Your task to perform on an android device: uninstall "TextNow: Call + Text Unlimited" Image 0: 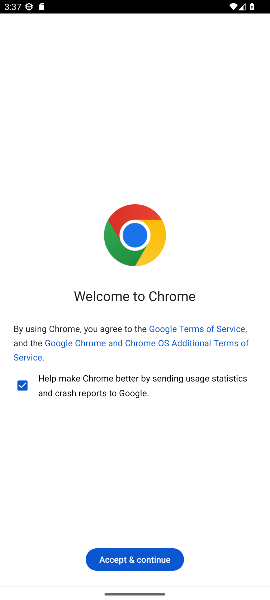
Step 0: press home button
Your task to perform on an android device: uninstall "TextNow: Call + Text Unlimited" Image 1: 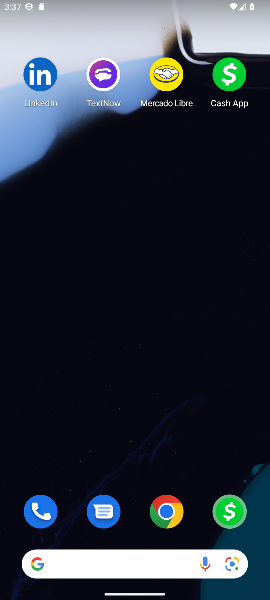
Step 1: drag from (106, 498) to (138, 254)
Your task to perform on an android device: uninstall "TextNow: Call + Text Unlimited" Image 2: 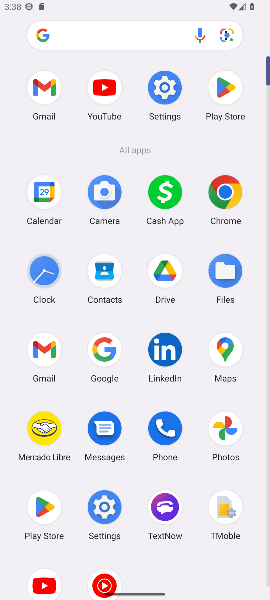
Step 2: click (41, 508)
Your task to perform on an android device: uninstall "TextNow: Call + Text Unlimited" Image 3: 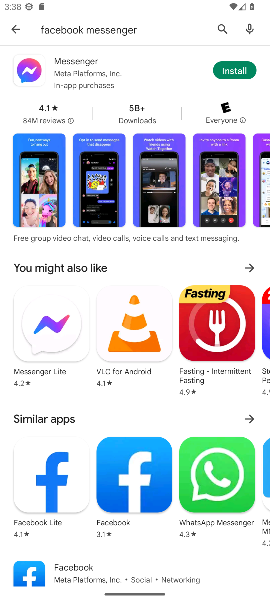
Step 3: click (12, 29)
Your task to perform on an android device: uninstall "TextNow: Call + Text Unlimited" Image 4: 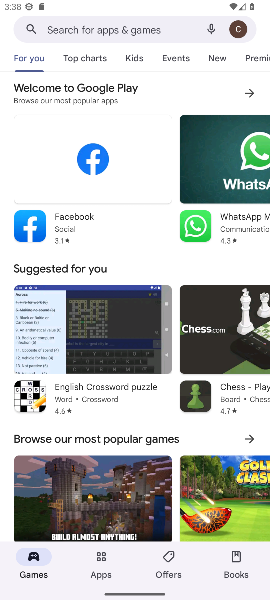
Step 4: click (97, 28)
Your task to perform on an android device: uninstall "TextNow: Call + Text Unlimited" Image 5: 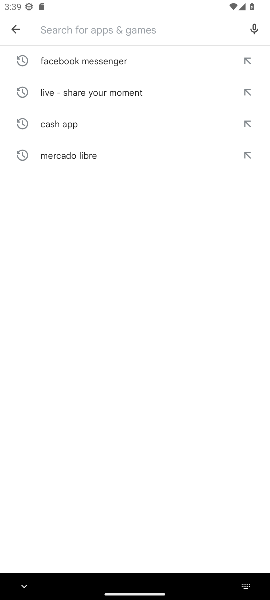
Step 5: type "TextNow: Call + Text Unlimited"
Your task to perform on an android device: uninstall "TextNow: Call + Text Unlimited" Image 6: 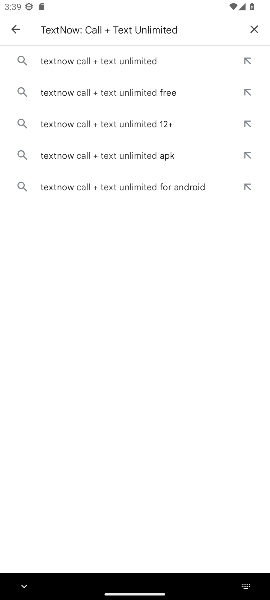
Step 6: click (94, 62)
Your task to perform on an android device: uninstall "TextNow: Call + Text Unlimited" Image 7: 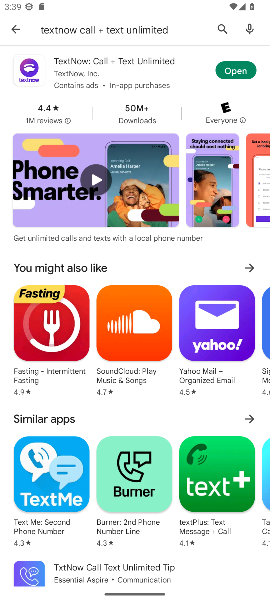
Step 7: click (80, 69)
Your task to perform on an android device: uninstall "TextNow: Call + Text Unlimited" Image 8: 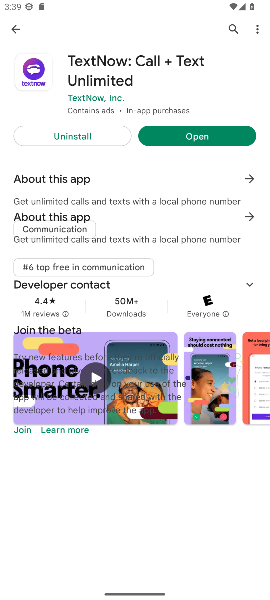
Step 8: click (80, 69)
Your task to perform on an android device: uninstall "TextNow: Call + Text Unlimited" Image 9: 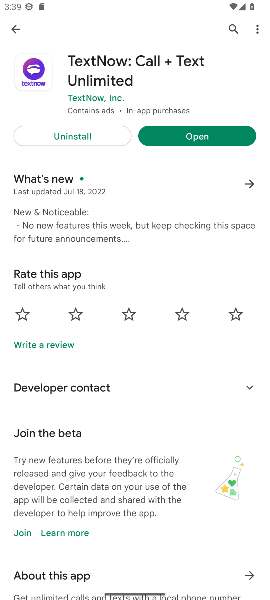
Step 9: click (90, 137)
Your task to perform on an android device: uninstall "TextNow: Call + Text Unlimited" Image 10: 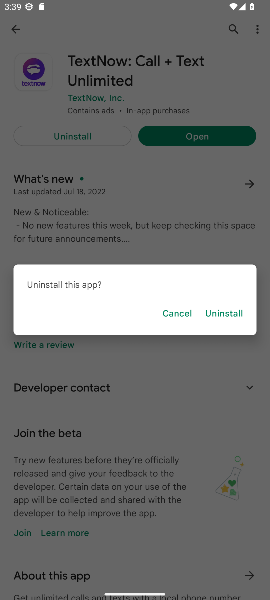
Step 10: click (229, 313)
Your task to perform on an android device: uninstall "TextNow: Call + Text Unlimited" Image 11: 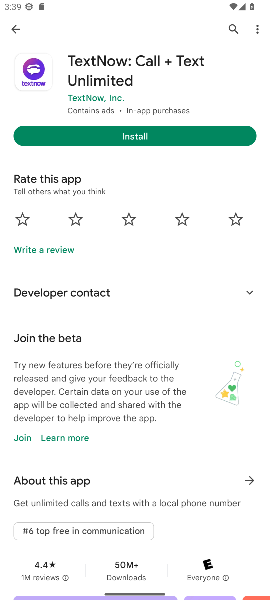
Step 11: task complete